Your task to perform on an android device: Check the weather Image 0: 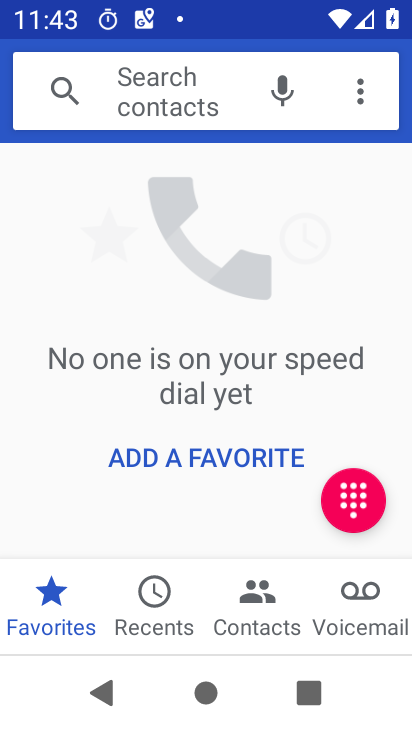
Step 0: press home button
Your task to perform on an android device: Check the weather Image 1: 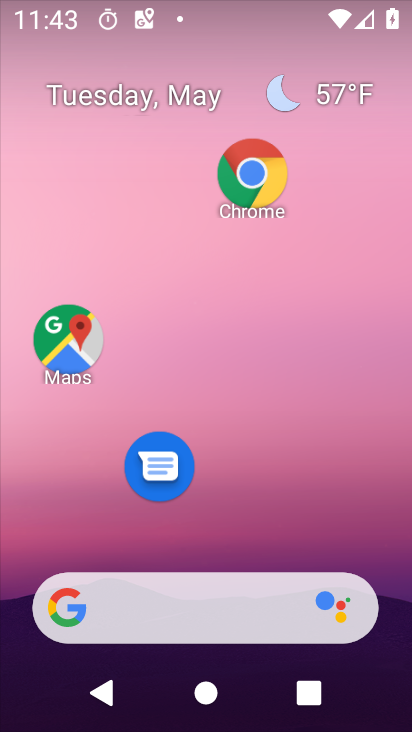
Step 1: click (257, 168)
Your task to perform on an android device: Check the weather Image 2: 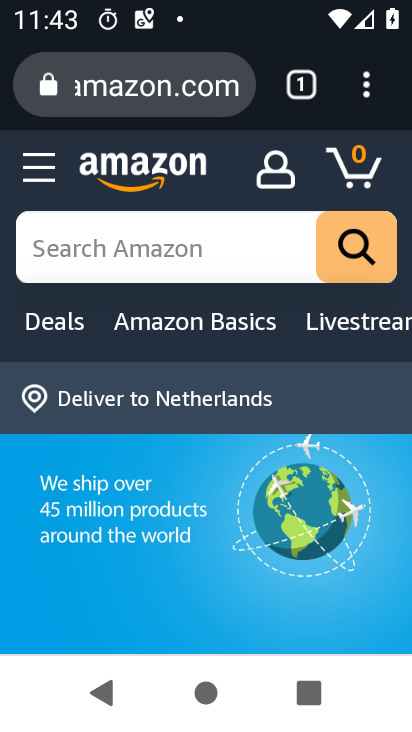
Step 2: task complete